Your task to perform on an android device: Open CNN.com Image 0: 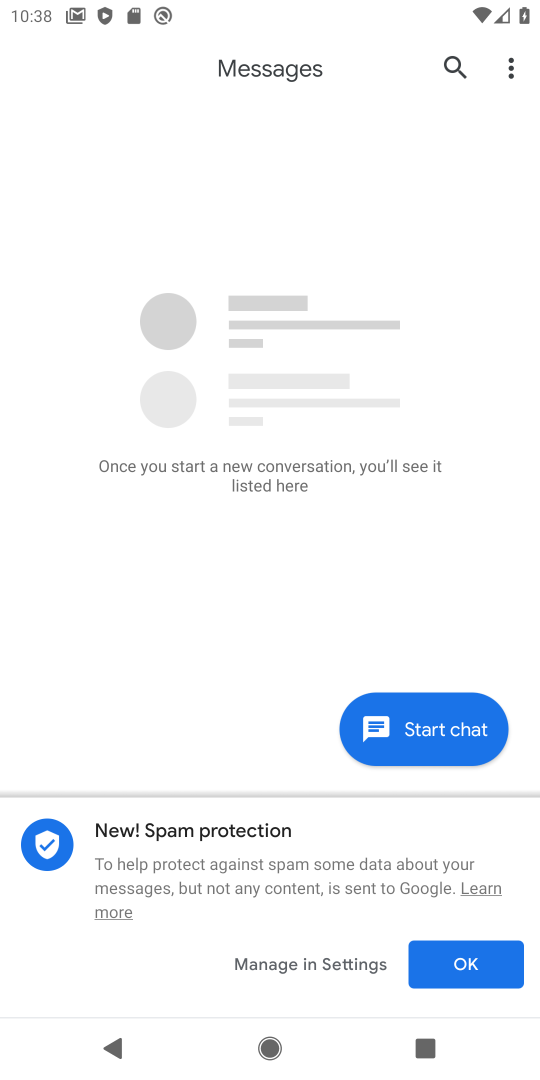
Step 0: press home button
Your task to perform on an android device: Open CNN.com Image 1: 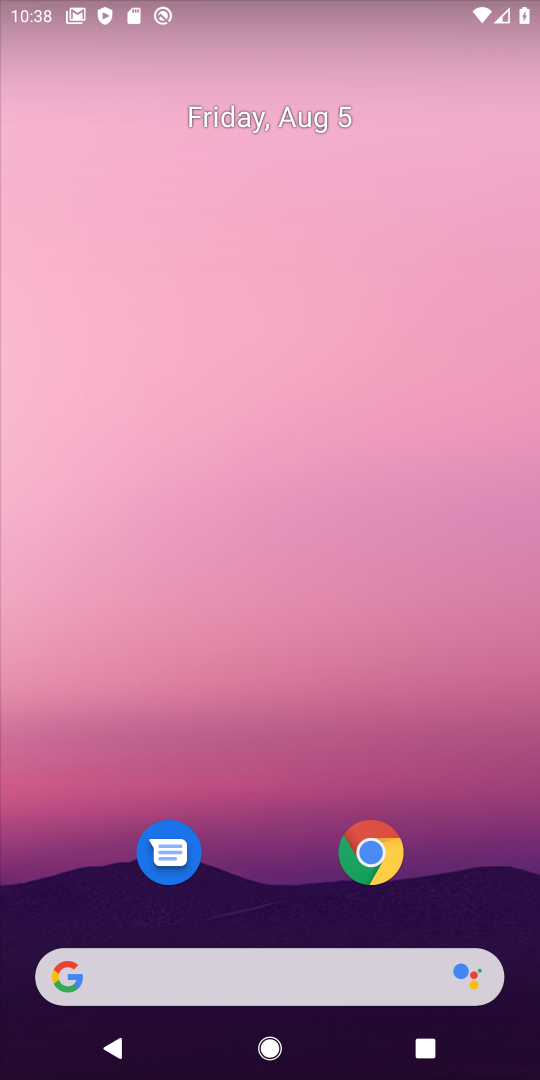
Step 1: drag from (314, 954) to (310, 386)
Your task to perform on an android device: Open CNN.com Image 2: 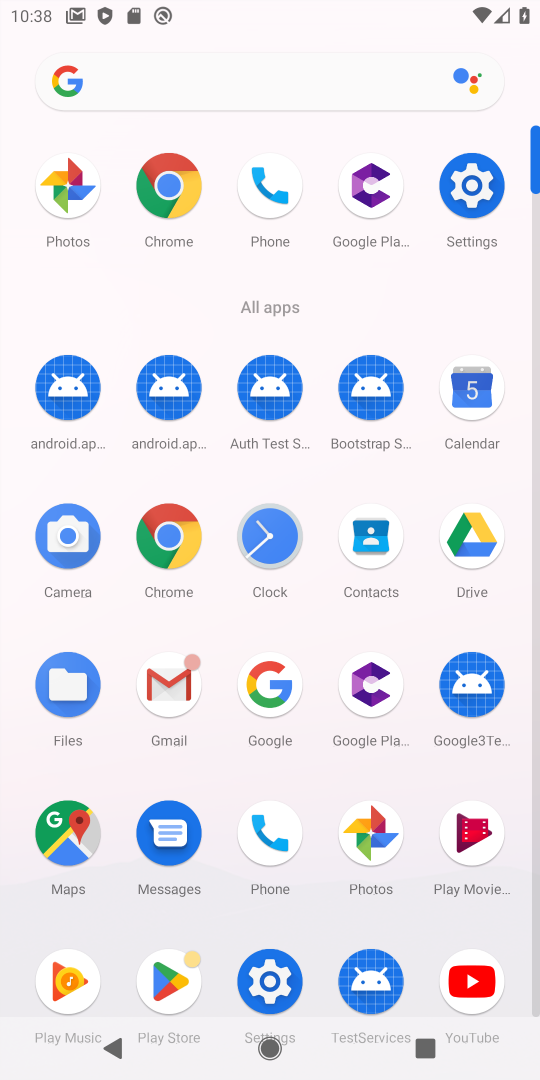
Step 2: click (273, 698)
Your task to perform on an android device: Open CNN.com Image 3: 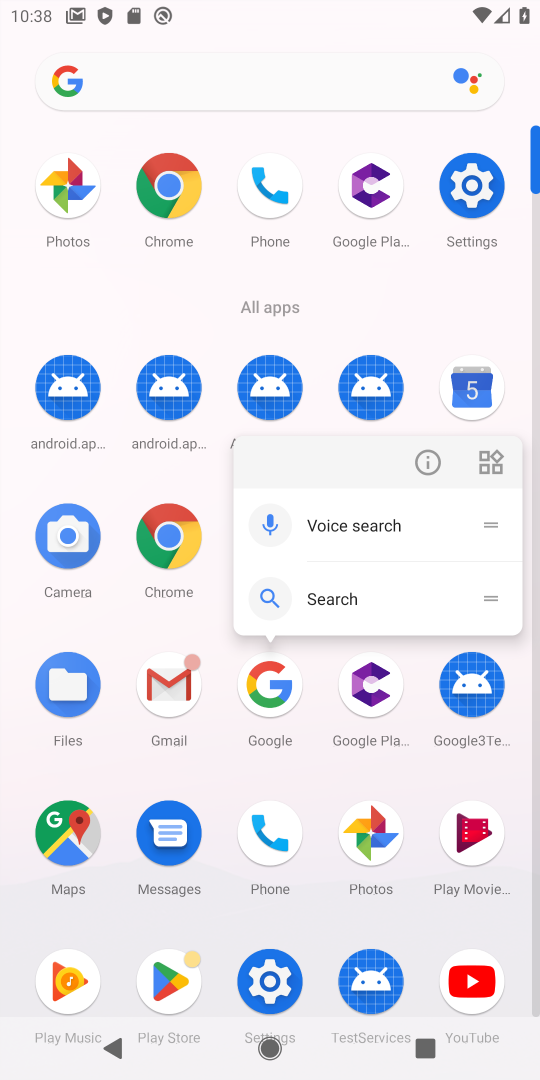
Step 3: click (267, 689)
Your task to perform on an android device: Open CNN.com Image 4: 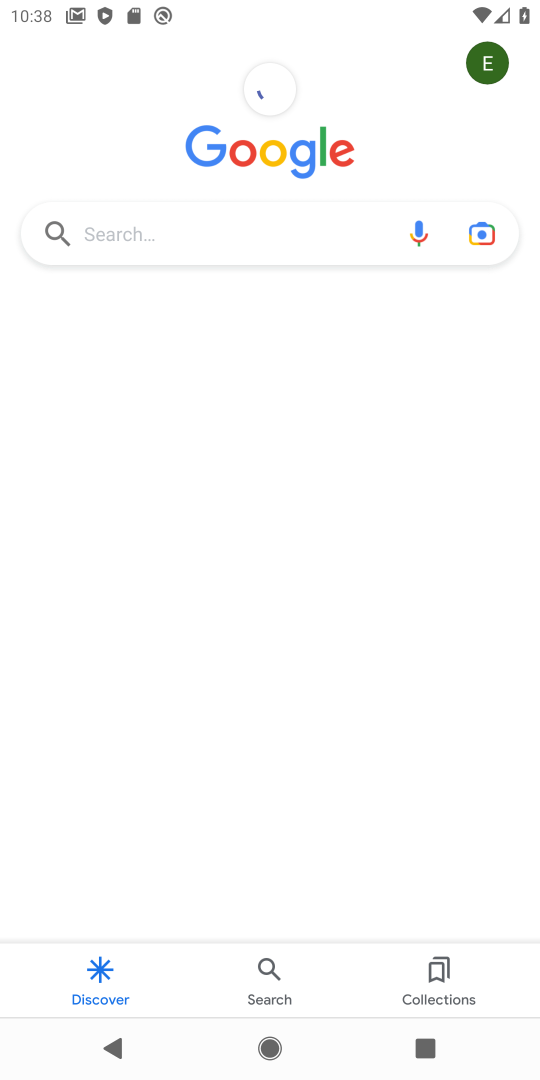
Step 4: click (182, 245)
Your task to perform on an android device: Open CNN.com Image 5: 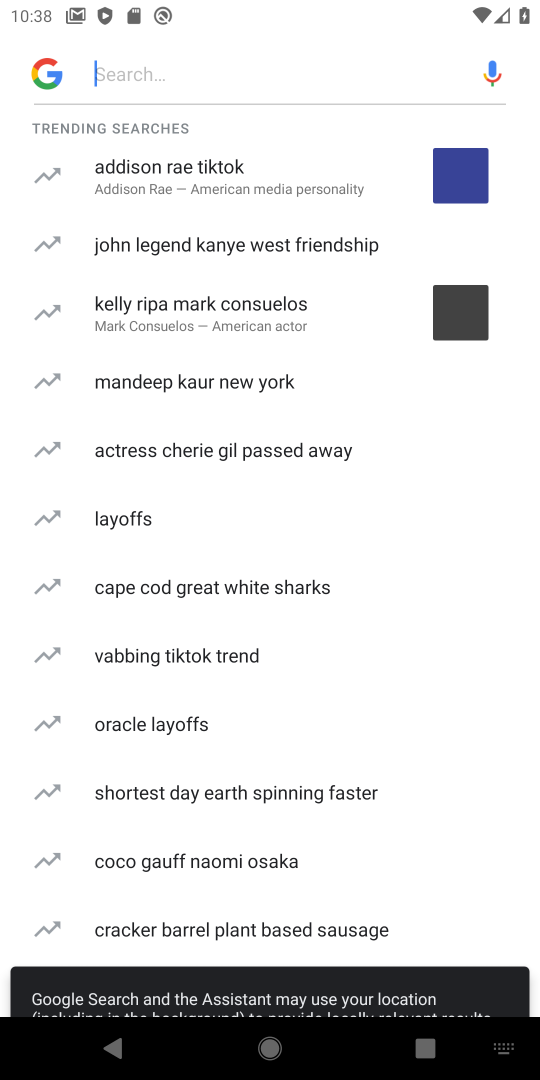
Step 5: click (143, 74)
Your task to perform on an android device: Open CNN.com Image 6: 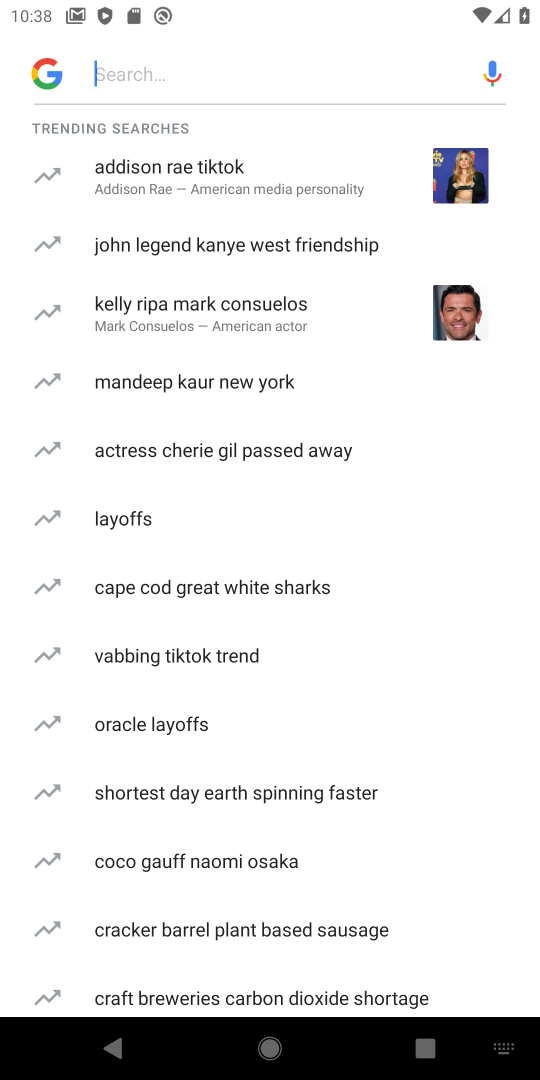
Step 6: click (179, 82)
Your task to perform on an android device: Open CNN.com Image 7: 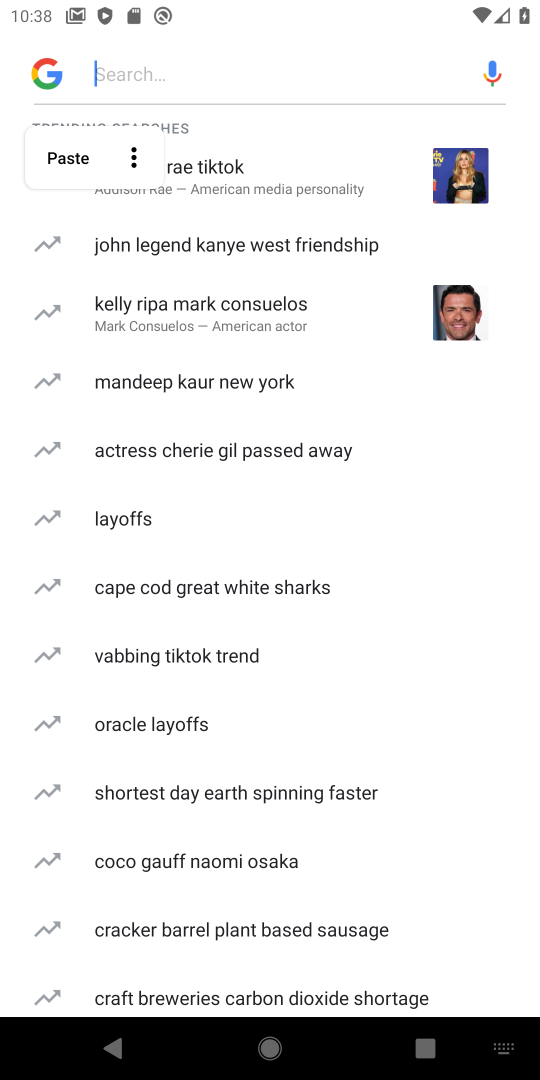
Step 7: type "CNN.com"
Your task to perform on an android device: Open CNN.com Image 8: 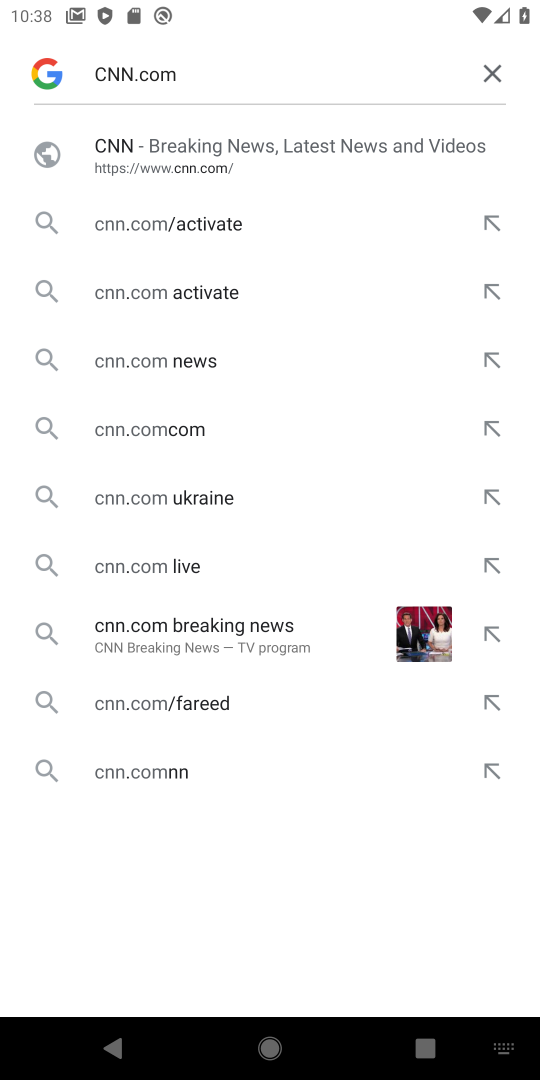
Step 8: click (181, 161)
Your task to perform on an android device: Open CNN.com Image 9: 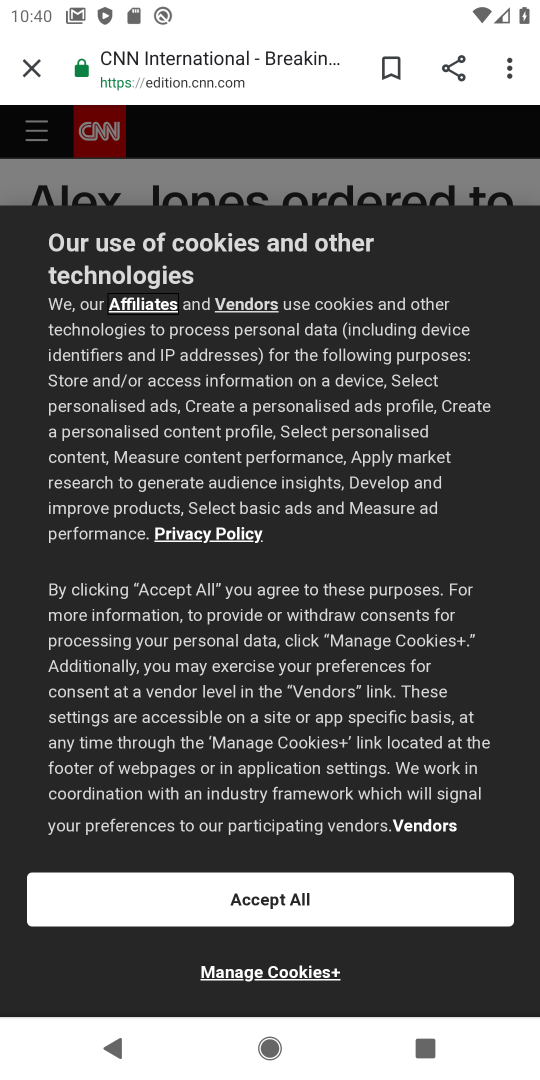
Step 9: task complete